Your task to perform on an android device: Add "duracell triple a" to the cart on walmart, then select checkout. Image 0: 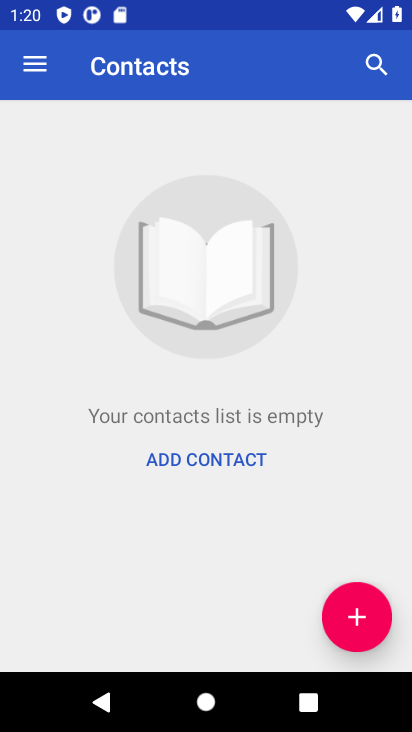
Step 0: press home button
Your task to perform on an android device: Add "duracell triple a" to the cart on walmart, then select checkout. Image 1: 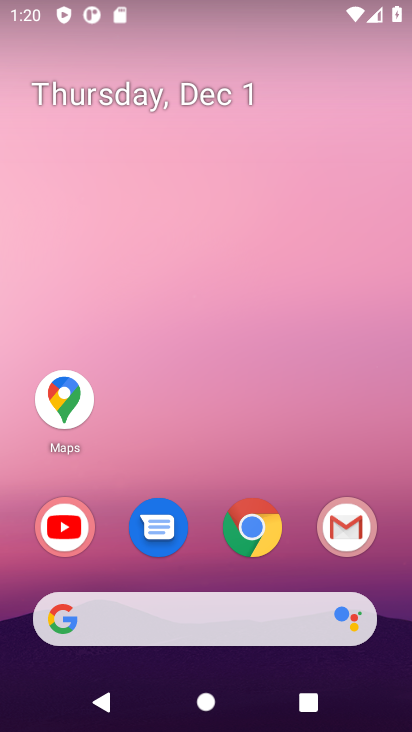
Step 1: click (260, 539)
Your task to perform on an android device: Add "duracell triple a" to the cart on walmart, then select checkout. Image 2: 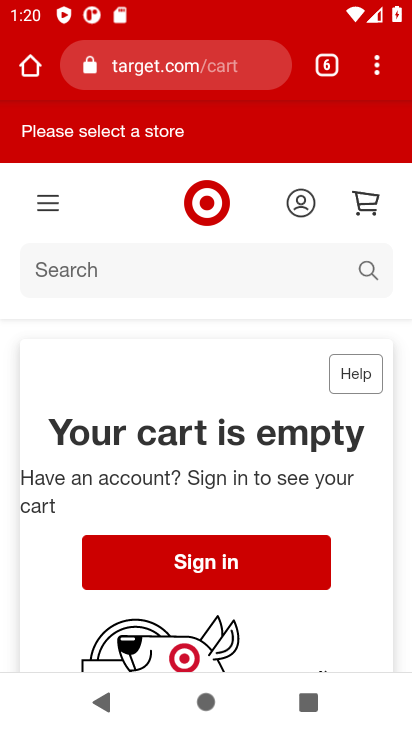
Step 2: click (160, 63)
Your task to perform on an android device: Add "duracell triple a" to the cart on walmart, then select checkout. Image 3: 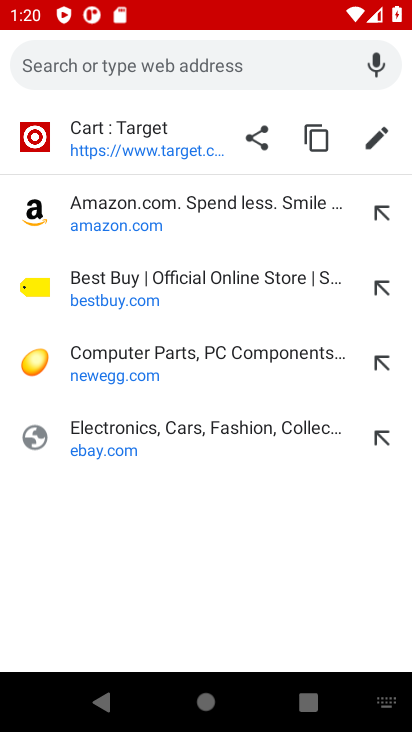
Step 3: type "walmart.com"
Your task to perform on an android device: Add "duracell triple a" to the cart on walmart, then select checkout. Image 4: 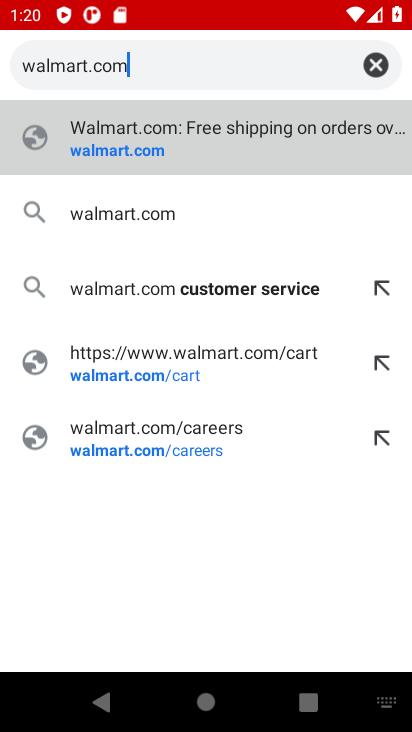
Step 4: click (141, 143)
Your task to perform on an android device: Add "duracell triple a" to the cart on walmart, then select checkout. Image 5: 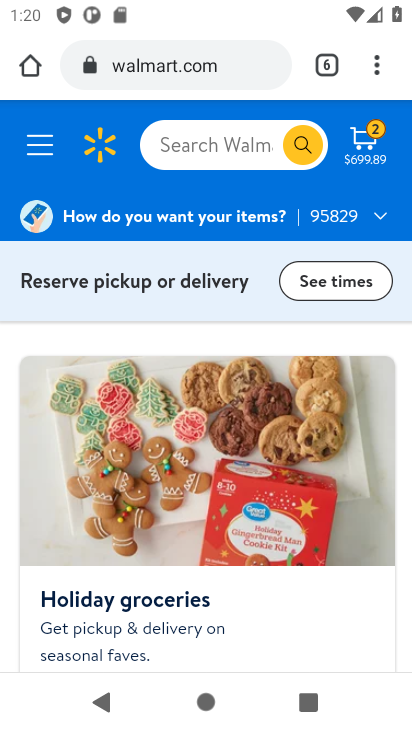
Step 5: click (169, 143)
Your task to perform on an android device: Add "duracell triple a" to the cart on walmart, then select checkout. Image 6: 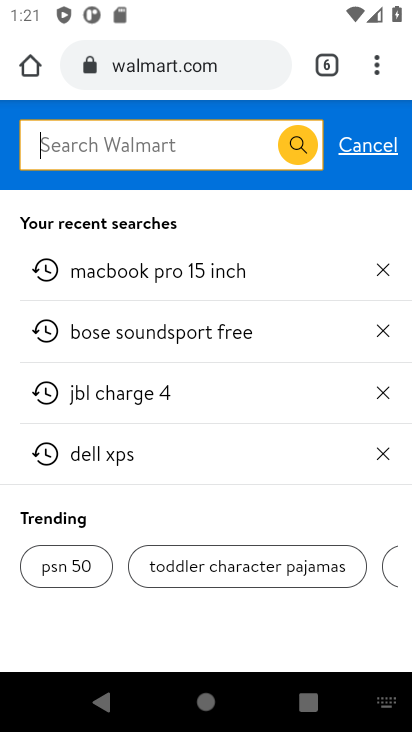
Step 6: type "duracell triple a"
Your task to perform on an android device: Add "duracell triple a" to the cart on walmart, then select checkout. Image 7: 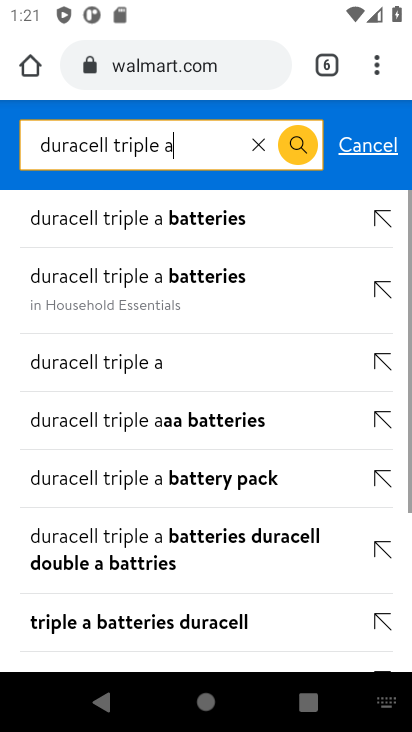
Step 7: click (166, 222)
Your task to perform on an android device: Add "duracell triple a" to the cart on walmart, then select checkout. Image 8: 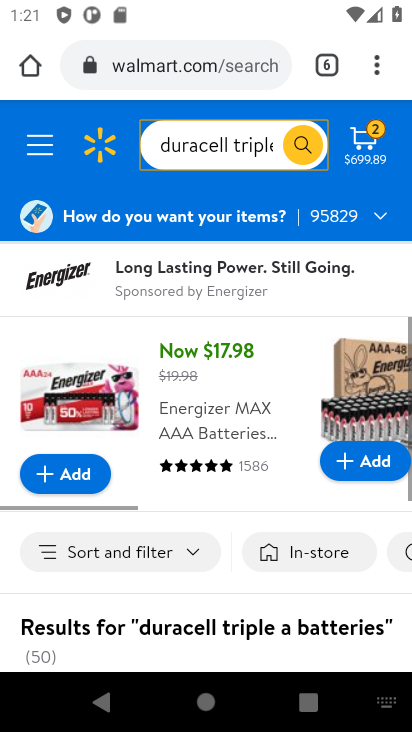
Step 8: drag from (222, 524) to (189, 266)
Your task to perform on an android device: Add "duracell triple a" to the cart on walmart, then select checkout. Image 9: 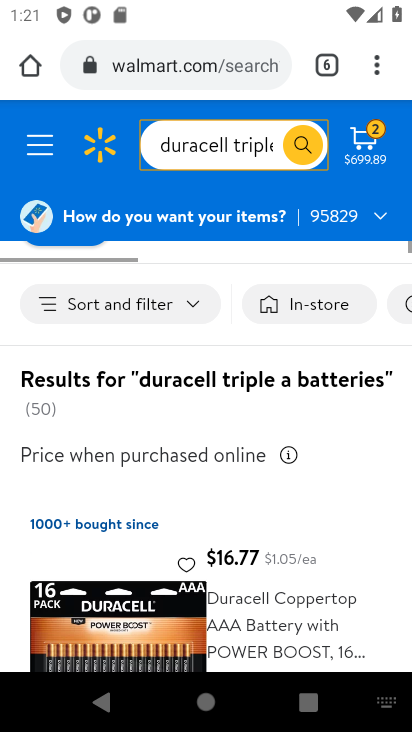
Step 9: drag from (238, 461) to (231, 237)
Your task to perform on an android device: Add "duracell triple a" to the cart on walmart, then select checkout. Image 10: 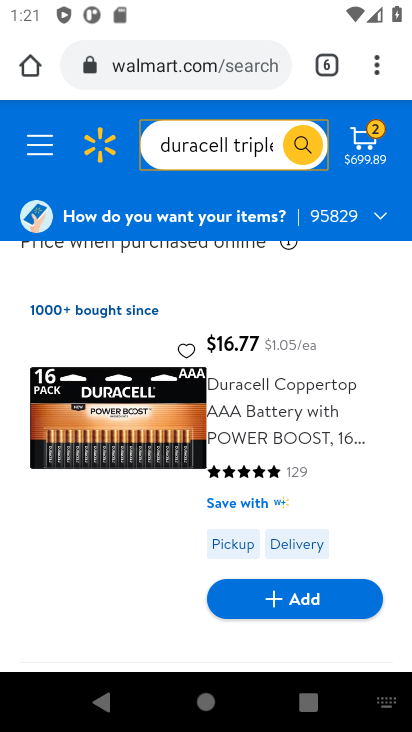
Step 10: click (298, 595)
Your task to perform on an android device: Add "duracell triple a" to the cart on walmart, then select checkout. Image 11: 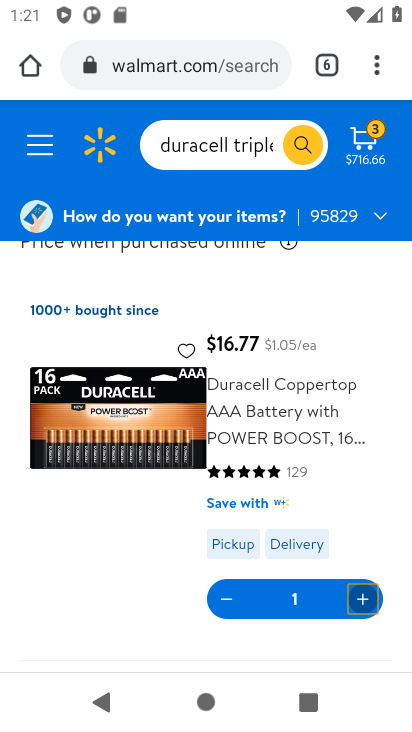
Step 11: click (370, 138)
Your task to perform on an android device: Add "duracell triple a" to the cart on walmart, then select checkout. Image 12: 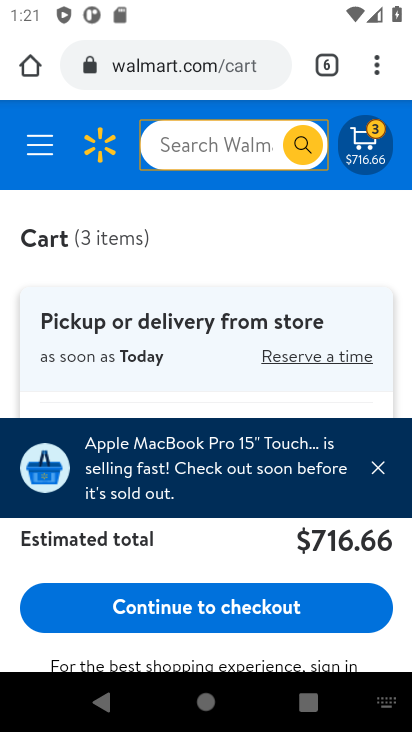
Step 12: click (234, 599)
Your task to perform on an android device: Add "duracell triple a" to the cart on walmart, then select checkout. Image 13: 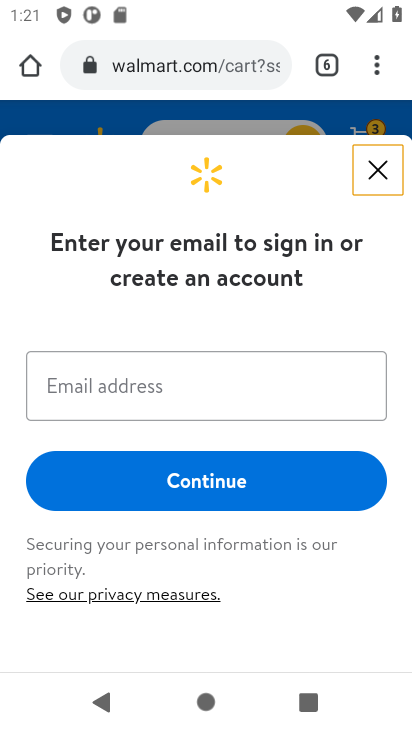
Step 13: task complete